Your task to perform on an android device: change the clock style Image 0: 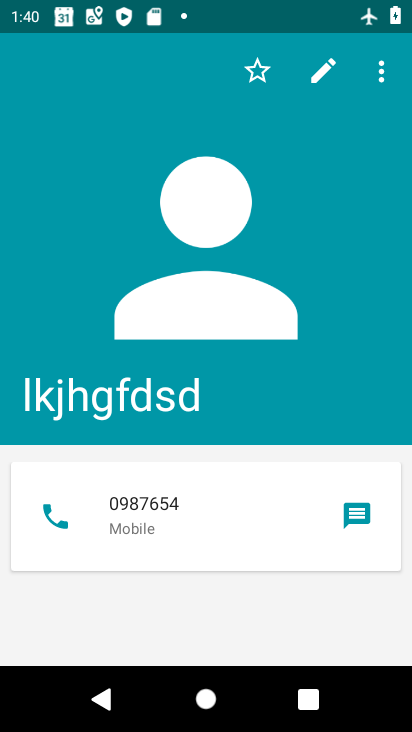
Step 0: press home button
Your task to perform on an android device: change the clock style Image 1: 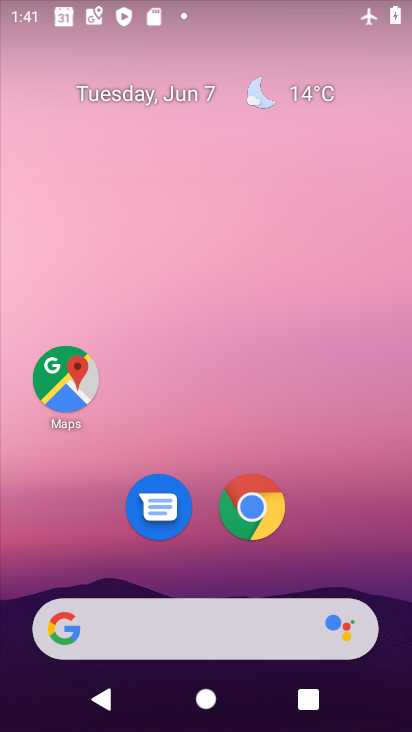
Step 1: drag from (395, 611) to (349, 52)
Your task to perform on an android device: change the clock style Image 2: 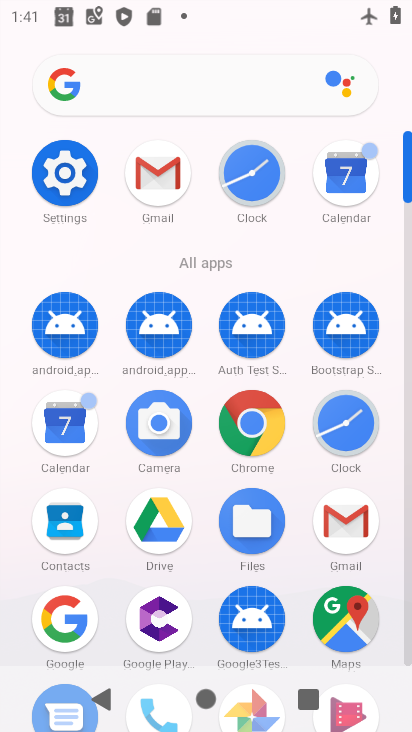
Step 2: click (347, 423)
Your task to perform on an android device: change the clock style Image 3: 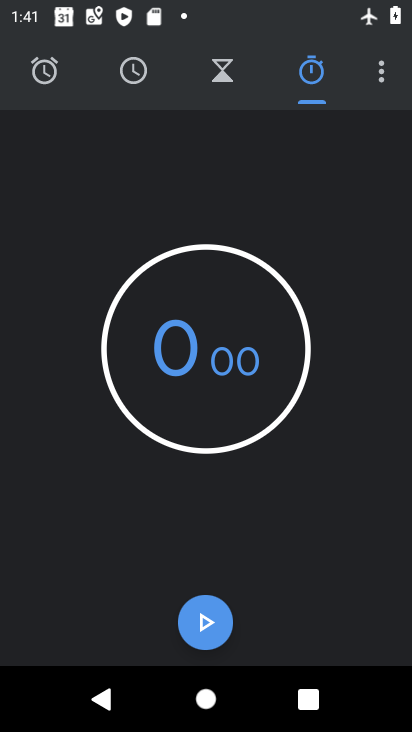
Step 3: click (381, 75)
Your task to perform on an android device: change the clock style Image 4: 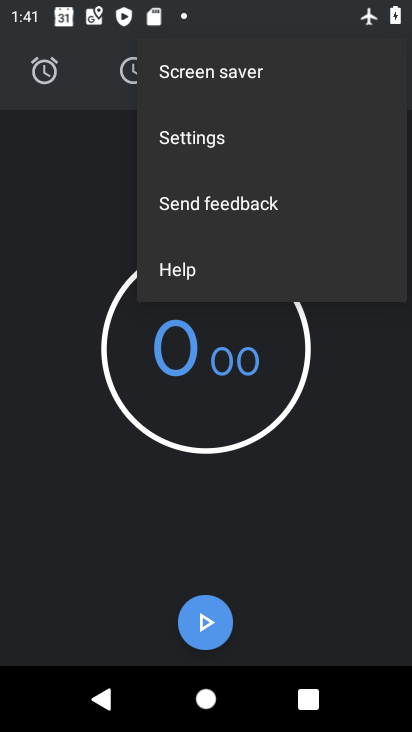
Step 4: click (187, 138)
Your task to perform on an android device: change the clock style Image 5: 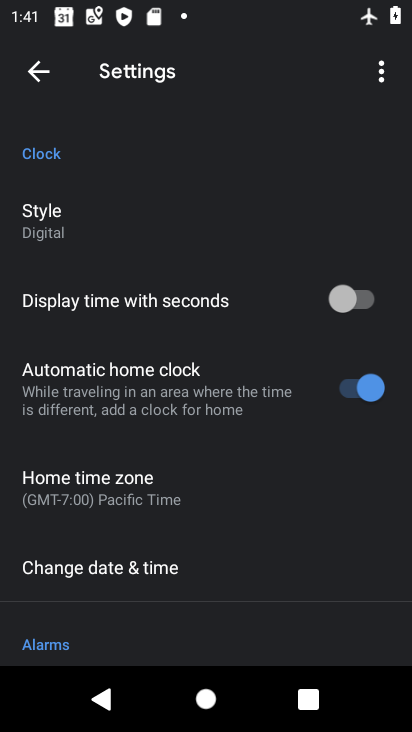
Step 5: click (58, 225)
Your task to perform on an android device: change the clock style Image 6: 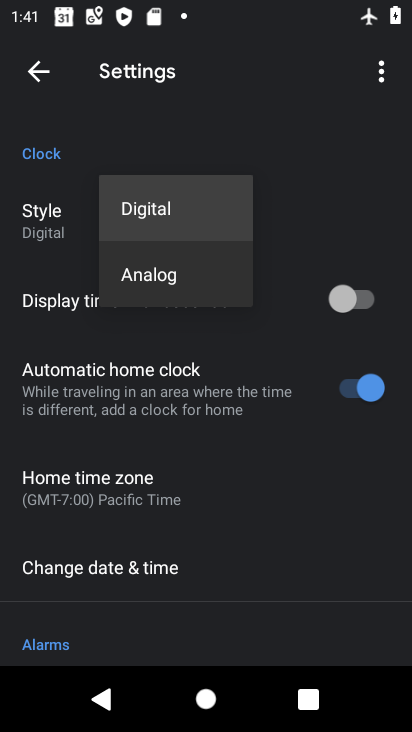
Step 6: click (139, 271)
Your task to perform on an android device: change the clock style Image 7: 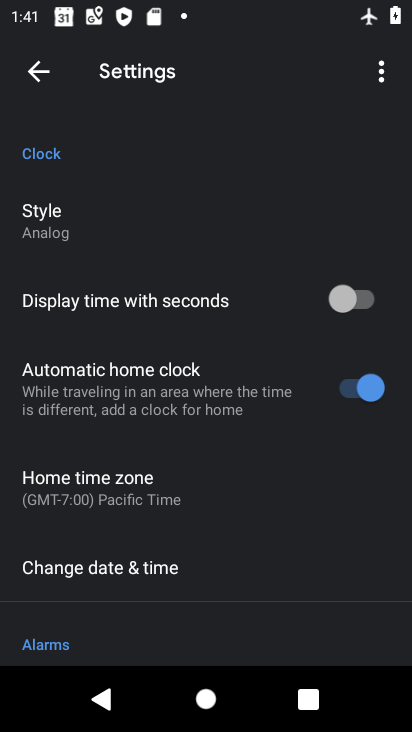
Step 7: task complete